Your task to perform on an android device: Go to Reddit.com Image 0: 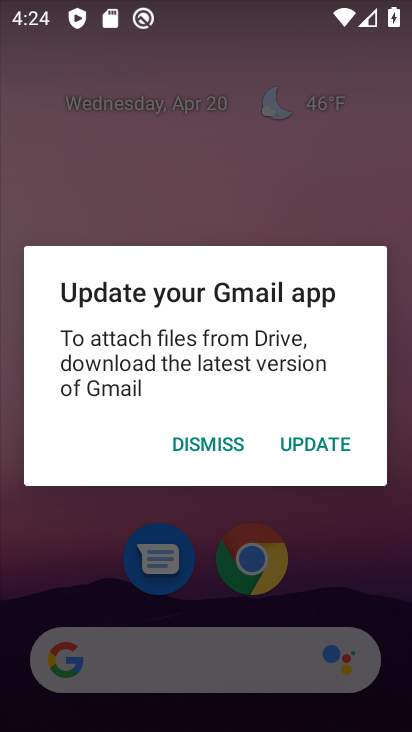
Step 0: click (233, 444)
Your task to perform on an android device: Go to Reddit.com Image 1: 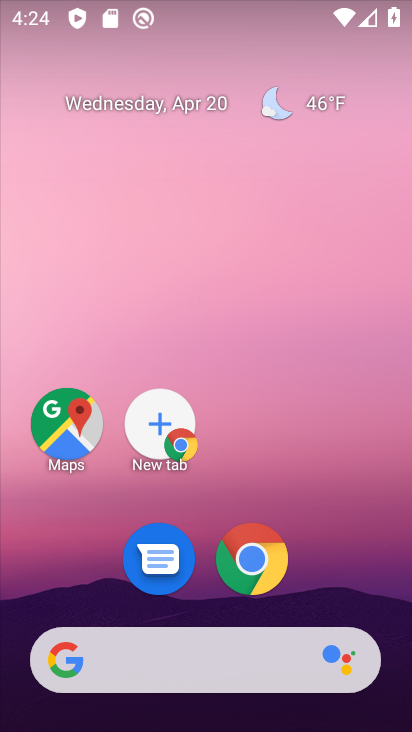
Step 1: click (266, 550)
Your task to perform on an android device: Go to Reddit.com Image 2: 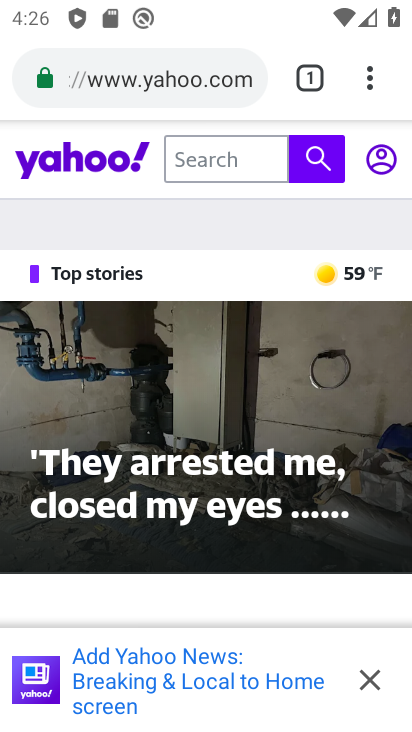
Step 2: click (159, 62)
Your task to perform on an android device: Go to Reddit.com Image 3: 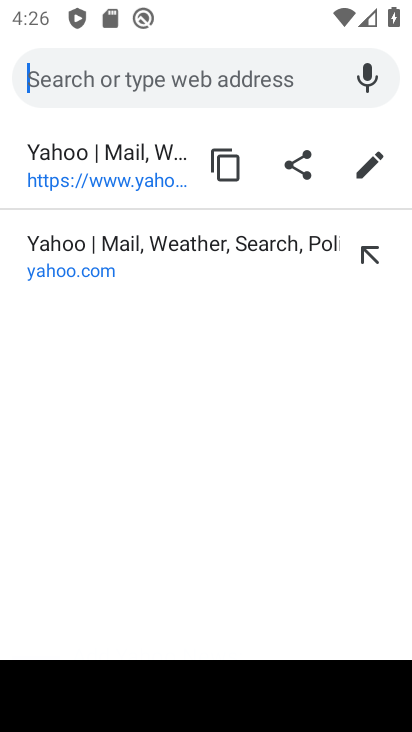
Step 3: type "reddit"
Your task to perform on an android device: Go to Reddit.com Image 4: 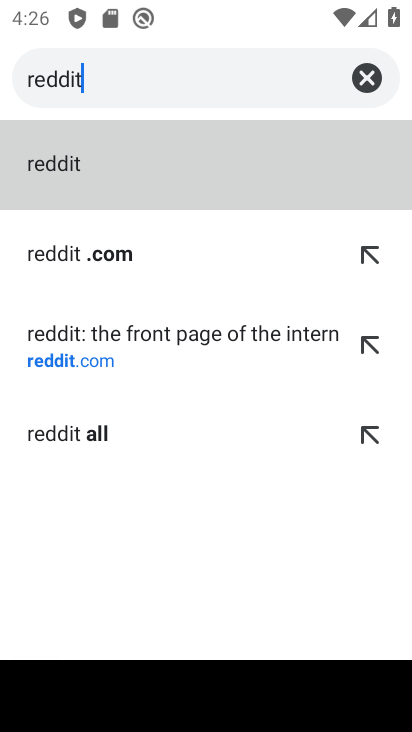
Step 4: click (191, 342)
Your task to perform on an android device: Go to Reddit.com Image 5: 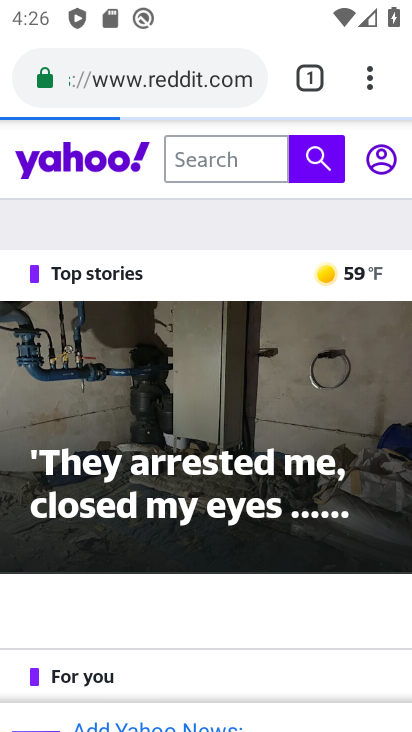
Step 5: task complete